Your task to perform on an android device: Open Google Chrome Image 0: 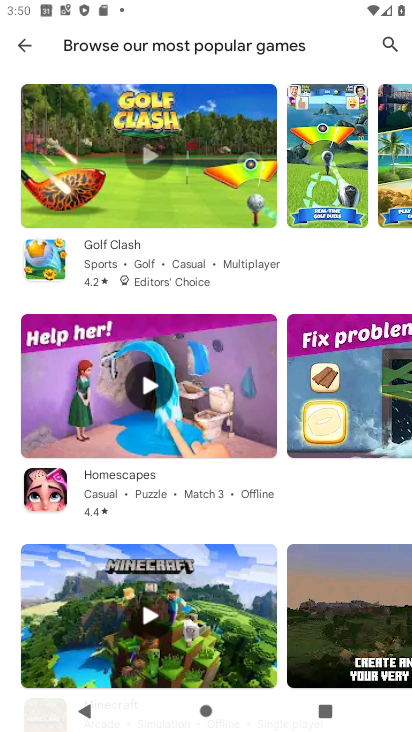
Step 0: press home button
Your task to perform on an android device: Open Google Chrome Image 1: 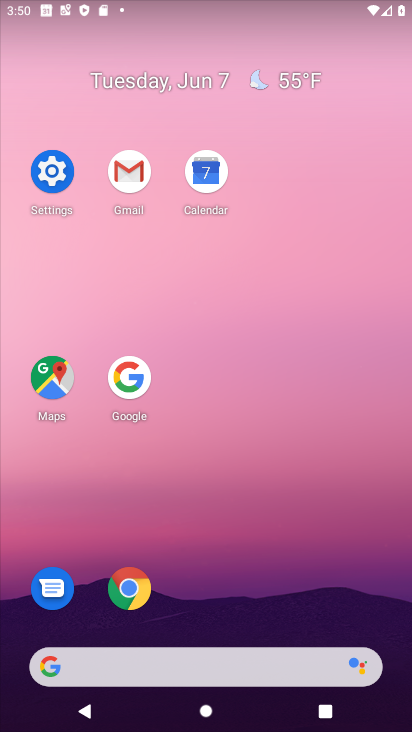
Step 1: click (138, 597)
Your task to perform on an android device: Open Google Chrome Image 2: 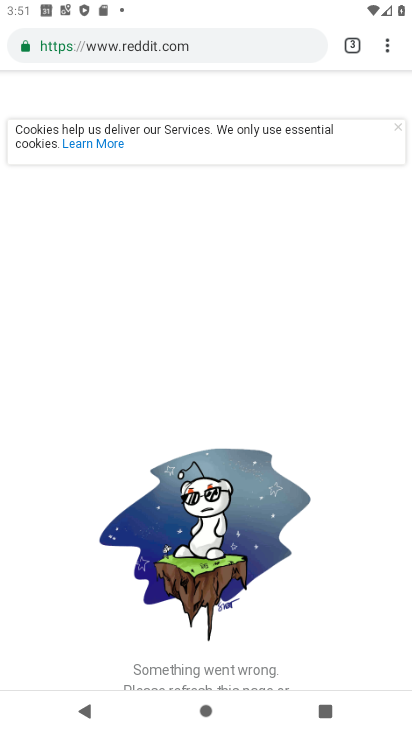
Step 2: task complete